Your task to perform on an android device: turn off picture-in-picture Image 0: 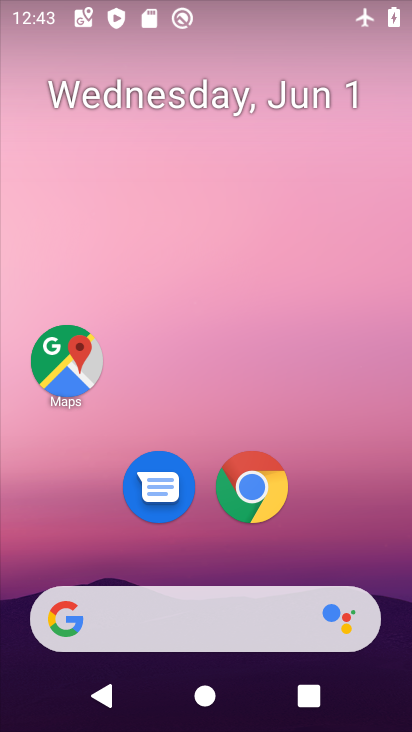
Step 0: click (245, 489)
Your task to perform on an android device: turn off picture-in-picture Image 1: 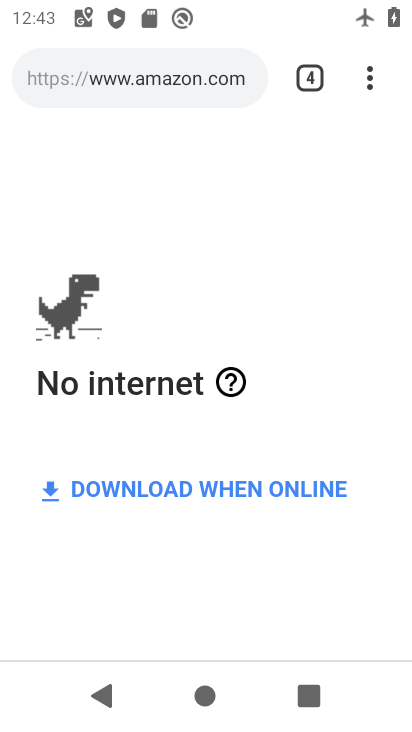
Step 1: click (379, 76)
Your task to perform on an android device: turn off picture-in-picture Image 2: 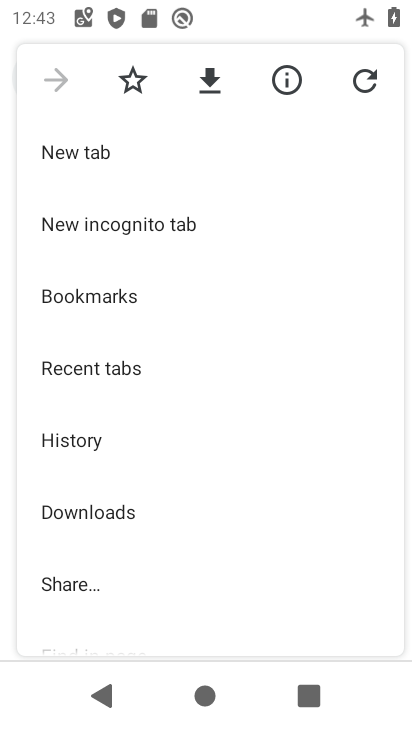
Step 2: drag from (122, 540) to (145, 239)
Your task to perform on an android device: turn off picture-in-picture Image 3: 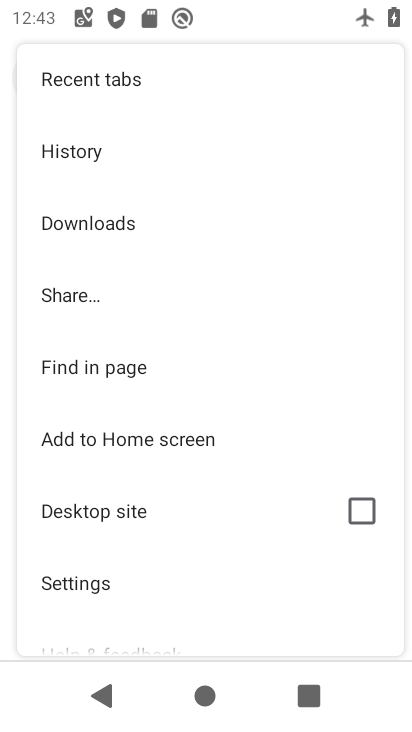
Step 3: press home button
Your task to perform on an android device: turn off picture-in-picture Image 4: 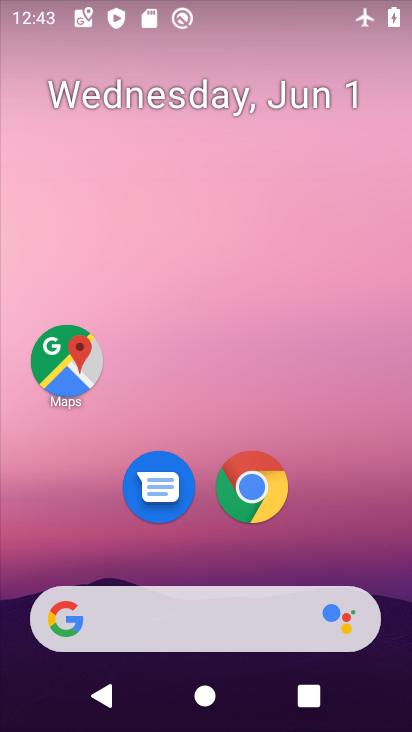
Step 4: drag from (252, 520) to (261, 229)
Your task to perform on an android device: turn off picture-in-picture Image 5: 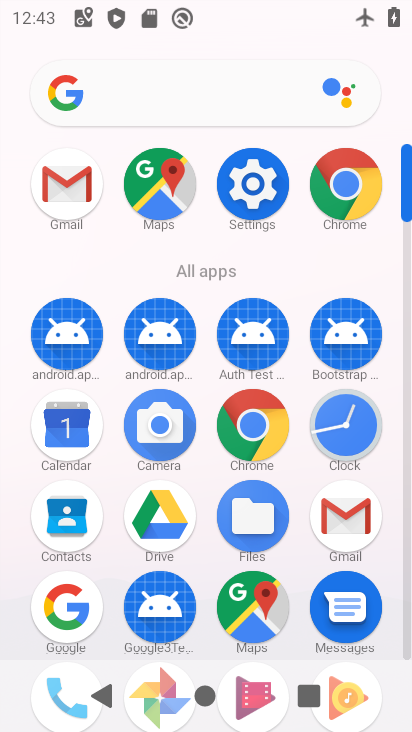
Step 5: click (243, 182)
Your task to perform on an android device: turn off picture-in-picture Image 6: 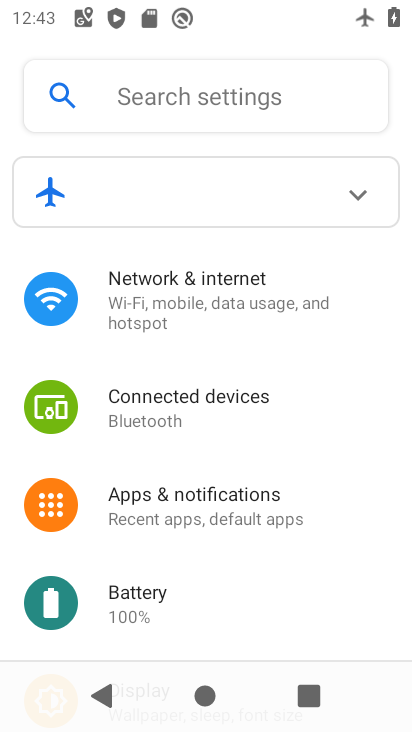
Step 6: drag from (206, 546) to (252, 210)
Your task to perform on an android device: turn off picture-in-picture Image 7: 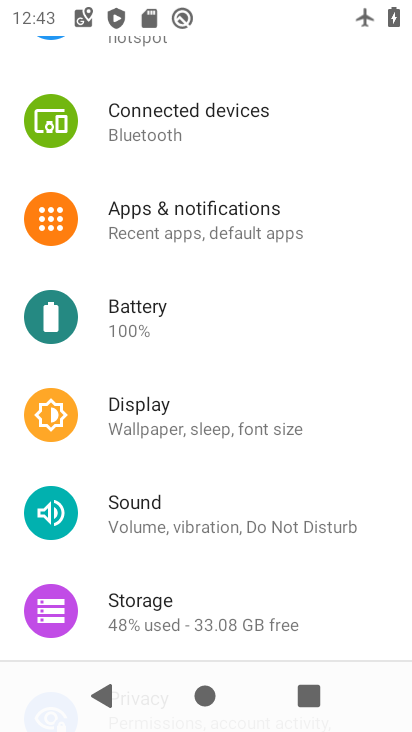
Step 7: drag from (152, 560) to (209, 197)
Your task to perform on an android device: turn off picture-in-picture Image 8: 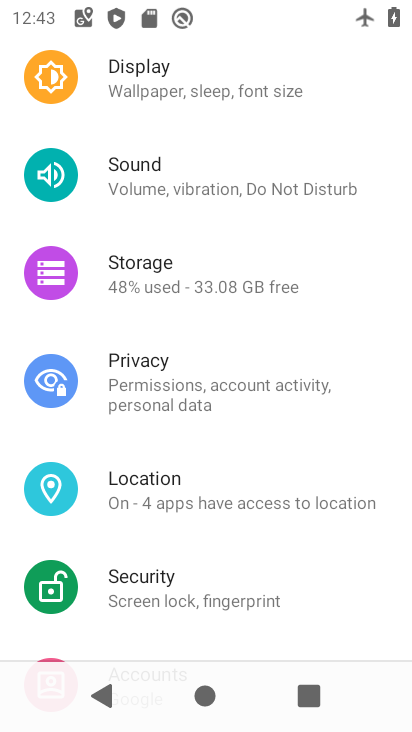
Step 8: drag from (208, 204) to (189, 634)
Your task to perform on an android device: turn off picture-in-picture Image 9: 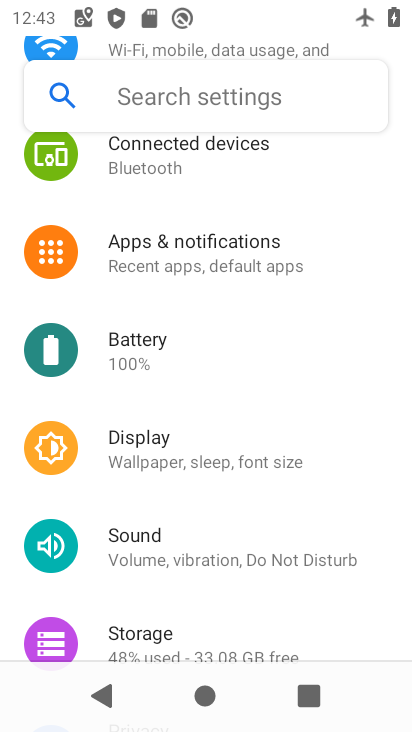
Step 9: drag from (197, 230) to (201, 637)
Your task to perform on an android device: turn off picture-in-picture Image 10: 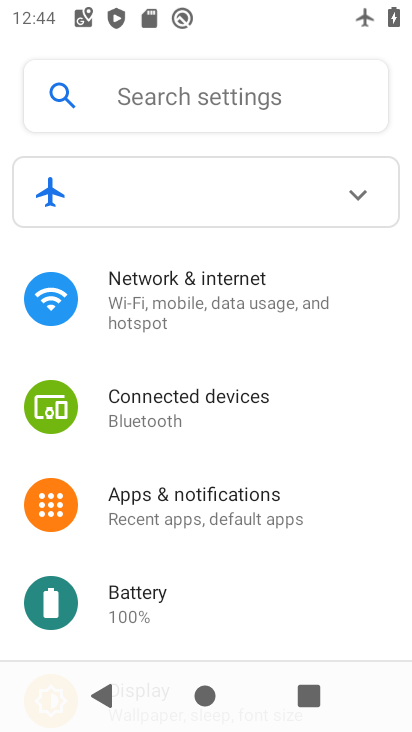
Step 10: click (220, 518)
Your task to perform on an android device: turn off picture-in-picture Image 11: 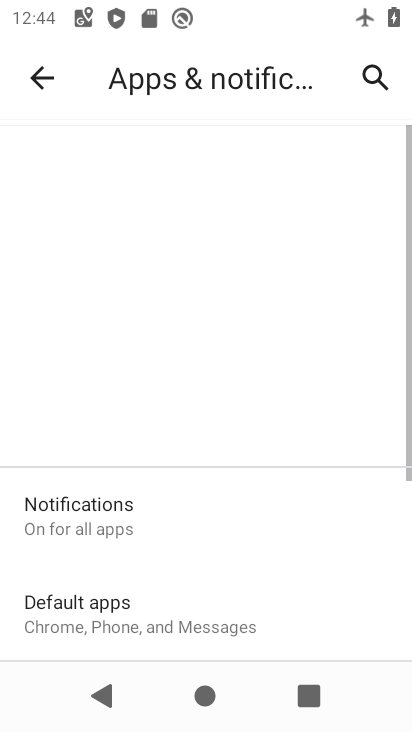
Step 11: drag from (217, 618) to (271, 296)
Your task to perform on an android device: turn off picture-in-picture Image 12: 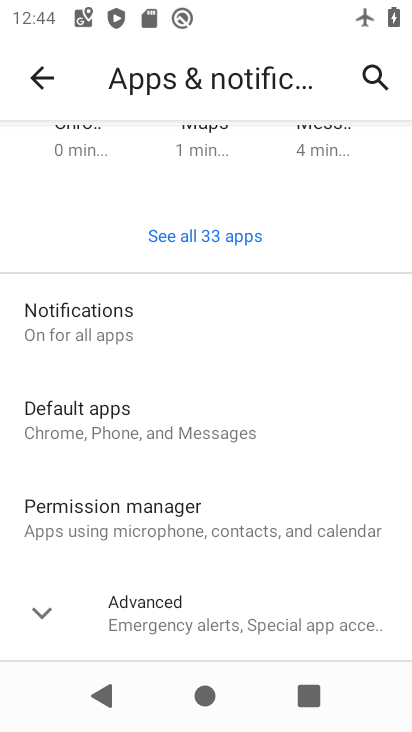
Step 12: click (225, 616)
Your task to perform on an android device: turn off picture-in-picture Image 13: 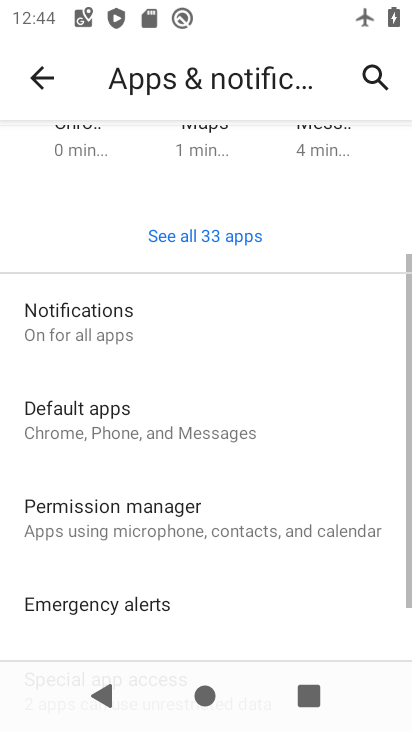
Step 13: drag from (176, 598) to (218, 266)
Your task to perform on an android device: turn off picture-in-picture Image 14: 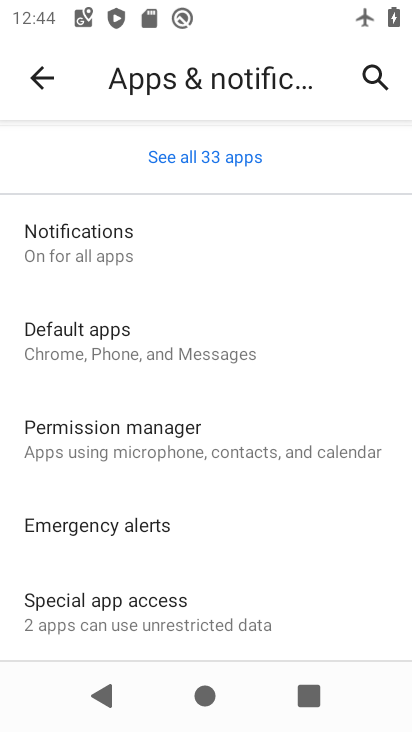
Step 14: click (111, 623)
Your task to perform on an android device: turn off picture-in-picture Image 15: 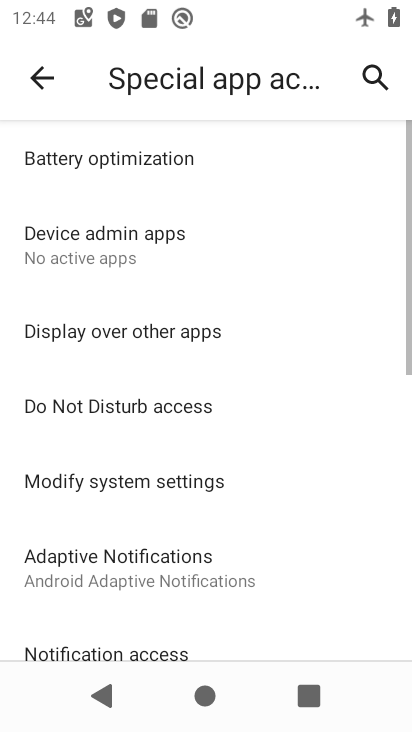
Step 15: drag from (155, 555) to (206, 221)
Your task to perform on an android device: turn off picture-in-picture Image 16: 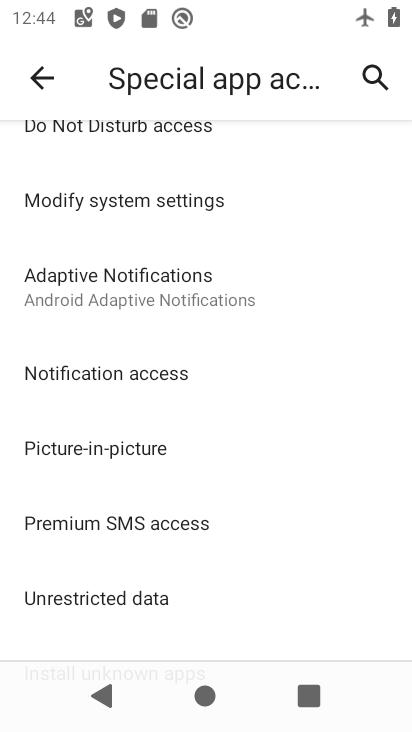
Step 16: click (136, 412)
Your task to perform on an android device: turn off picture-in-picture Image 17: 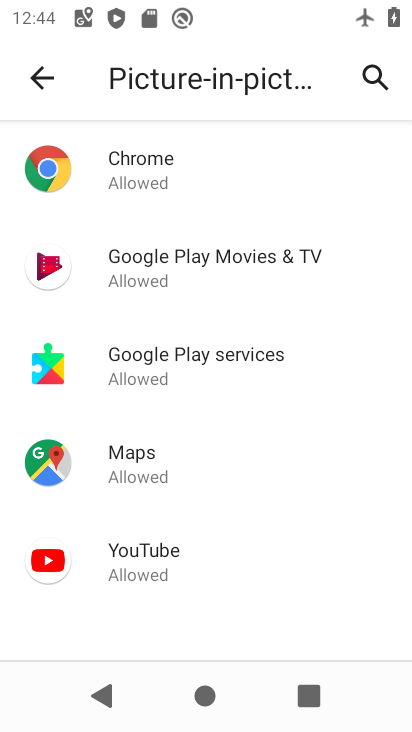
Step 17: click (162, 552)
Your task to perform on an android device: turn off picture-in-picture Image 18: 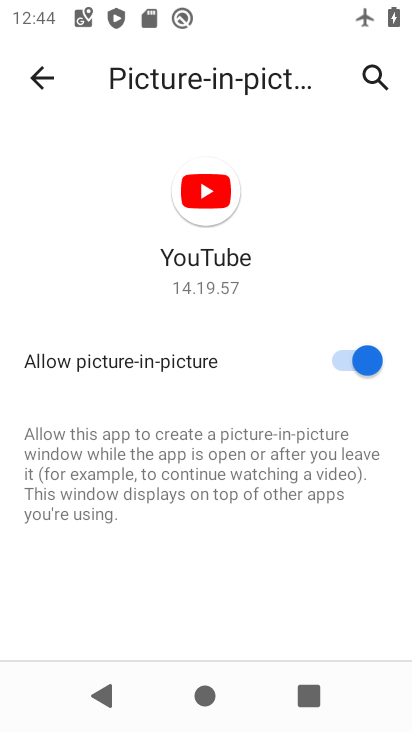
Step 18: click (332, 362)
Your task to perform on an android device: turn off picture-in-picture Image 19: 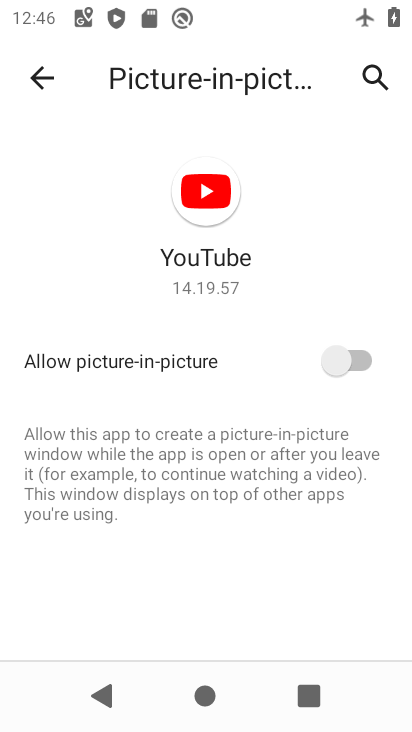
Step 19: task complete